Your task to perform on an android device: Open the map Image 0: 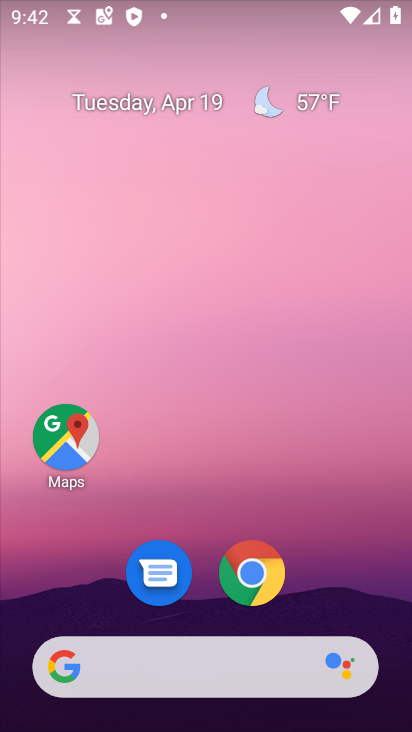
Step 0: click (67, 421)
Your task to perform on an android device: Open the map Image 1: 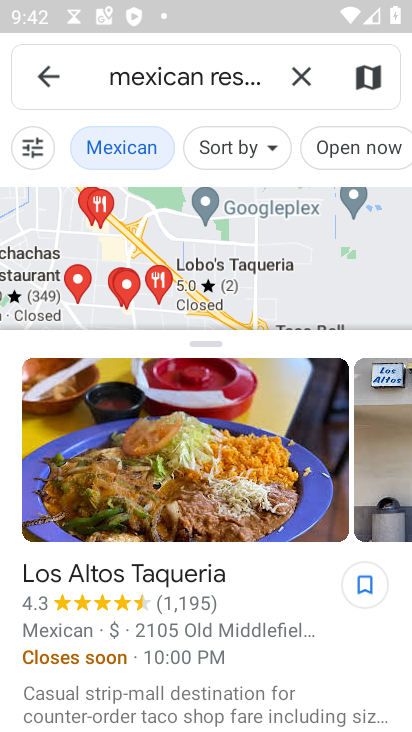
Step 1: task complete